Your task to perform on an android device: Open Wikipedia Image 0: 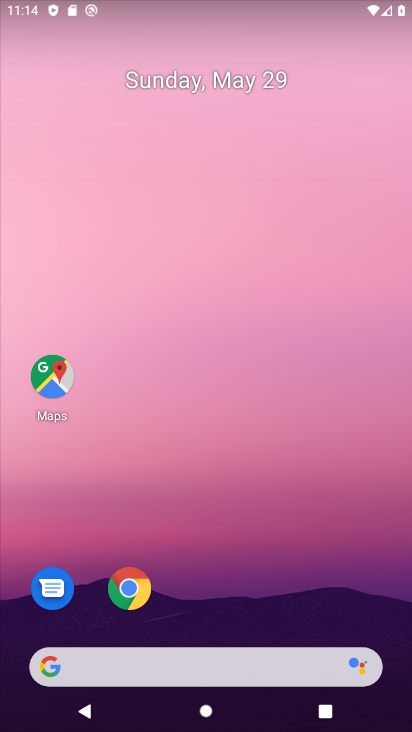
Step 0: drag from (319, 438) to (224, 0)
Your task to perform on an android device: Open Wikipedia Image 1: 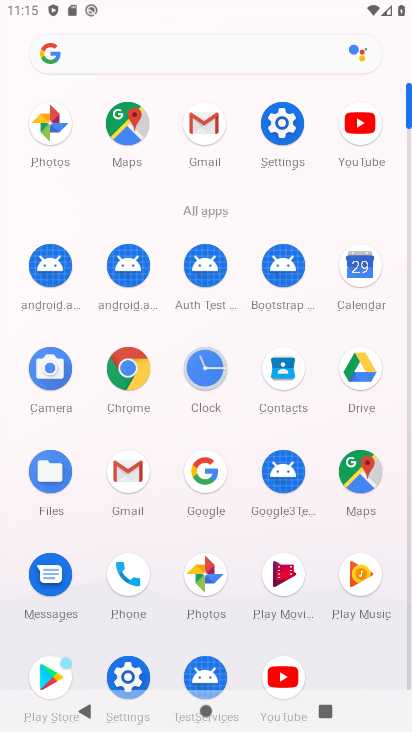
Step 1: click (134, 374)
Your task to perform on an android device: Open Wikipedia Image 2: 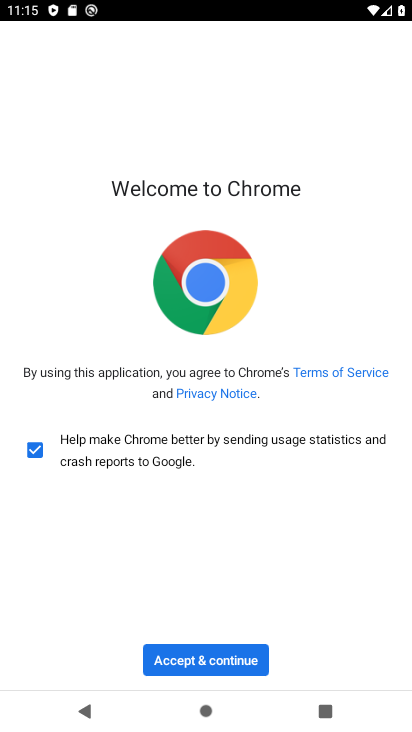
Step 2: click (213, 649)
Your task to perform on an android device: Open Wikipedia Image 3: 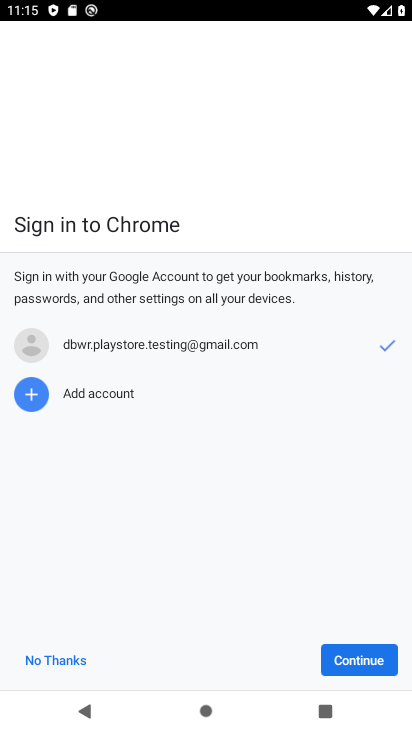
Step 3: click (65, 649)
Your task to perform on an android device: Open Wikipedia Image 4: 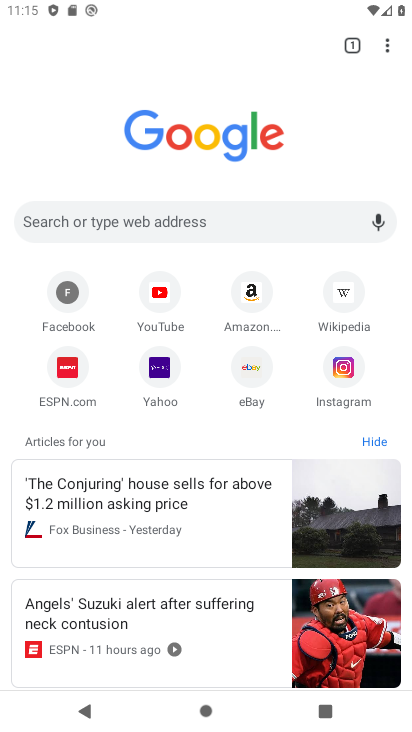
Step 4: click (242, 237)
Your task to perform on an android device: Open Wikipedia Image 5: 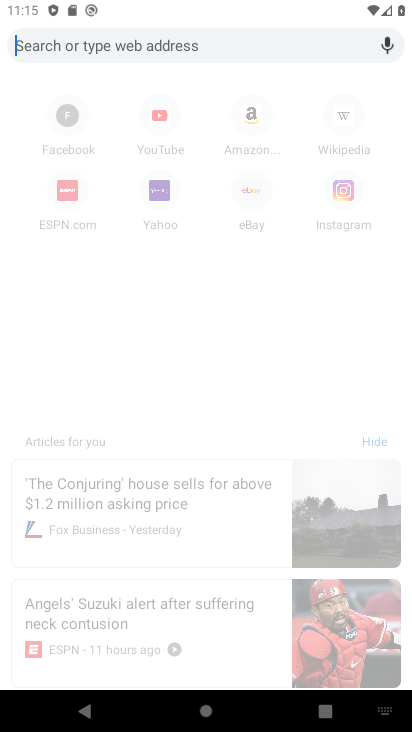
Step 5: press back button
Your task to perform on an android device: Open Wikipedia Image 6: 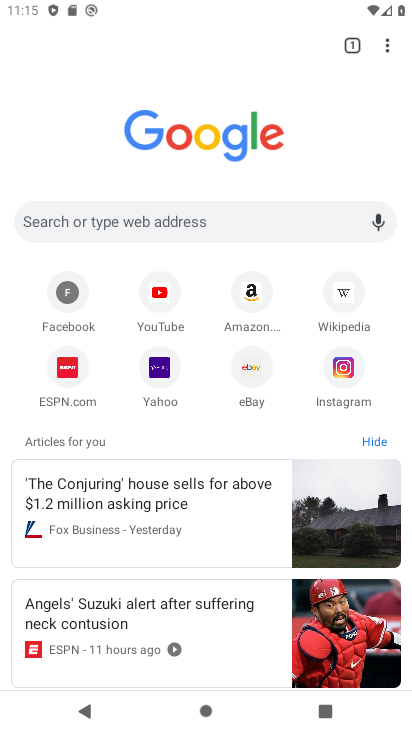
Step 6: click (340, 311)
Your task to perform on an android device: Open Wikipedia Image 7: 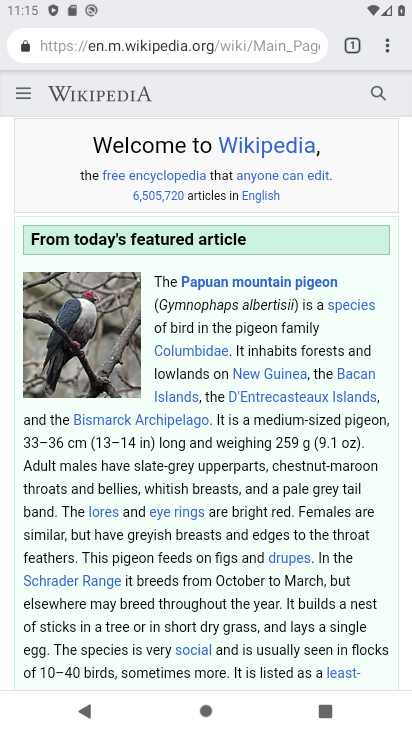
Step 7: task complete